Your task to perform on an android device: allow notifications from all sites in the chrome app Image 0: 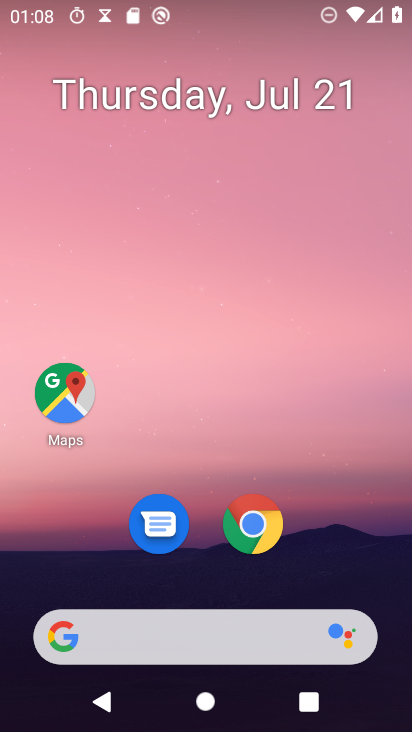
Step 0: drag from (158, 641) to (259, 196)
Your task to perform on an android device: allow notifications from all sites in the chrome app Image 1: 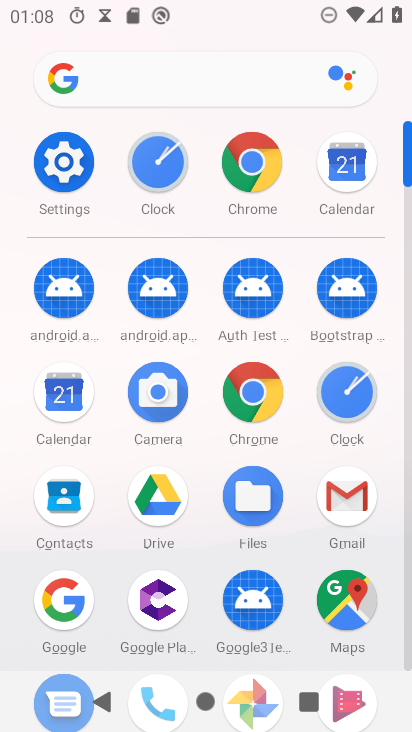
Step 1: click (249, 172)
Your task to perform on an android device: allow notifications from all sites in the chrome app Image 2: 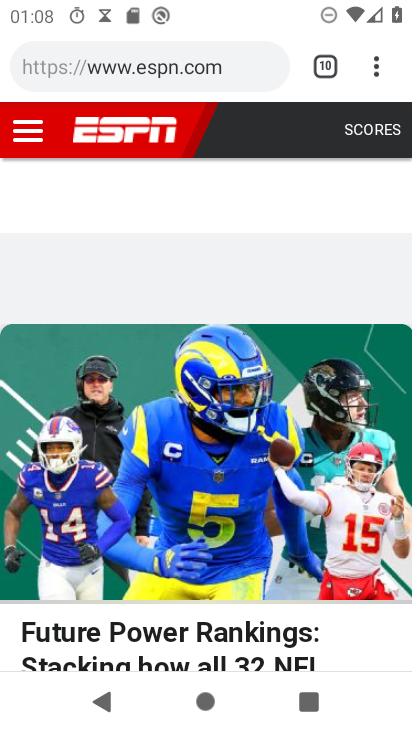
Step 2: drag from (378, 67) to (190, 529)
Your task to perform on an android device: allow notifications from all sites in the chrome app Image 3: 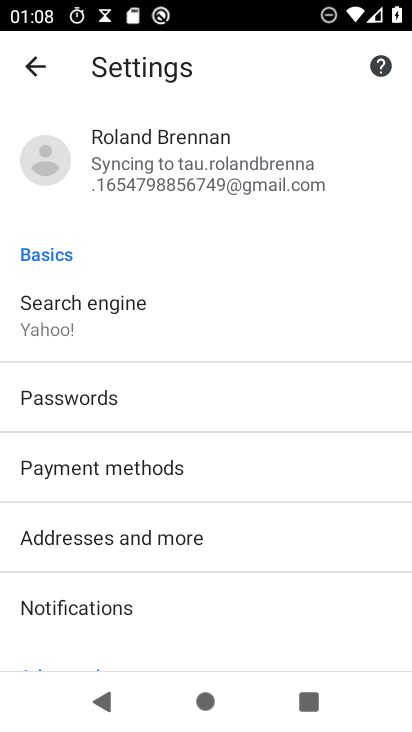
Step 3: drag from (207, 592) to (205, 166)
Your task to perform on an android device: allow notifications from all sites in the chrome app Image 4: 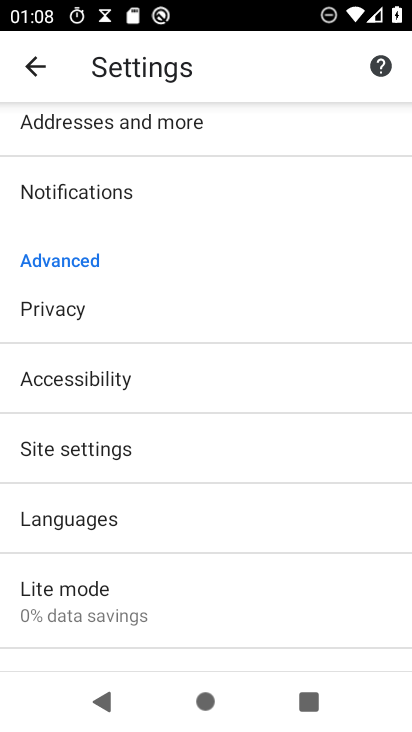
Step 4: click (113, 447)
Your task to perform on an android device: allow notifications from all sites in the chrome app Image 5: 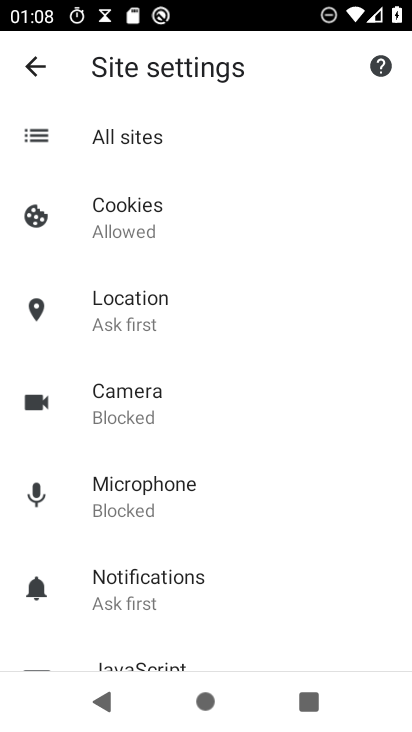
Step 5: click (149, 579)
Your task to perform on an android device: allow notifications from all sites in the chrome app Image 6: 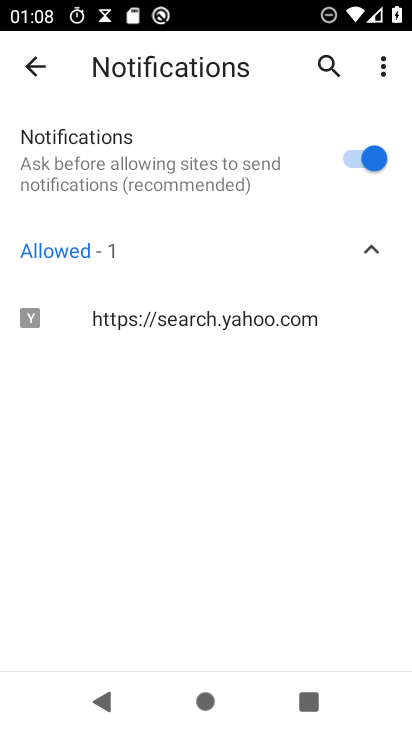
Step 6: task complete